Your task to perform on an android device: open device folders in google photos Image 0: 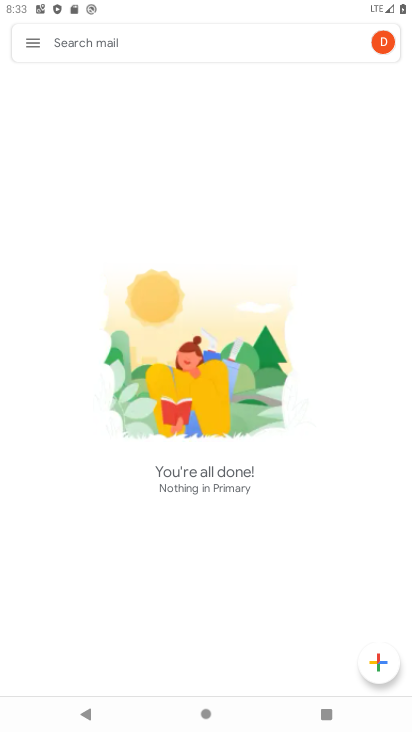
Step 0: press home button
Your task to perform on an android device: open device folders in google photos Image 1: 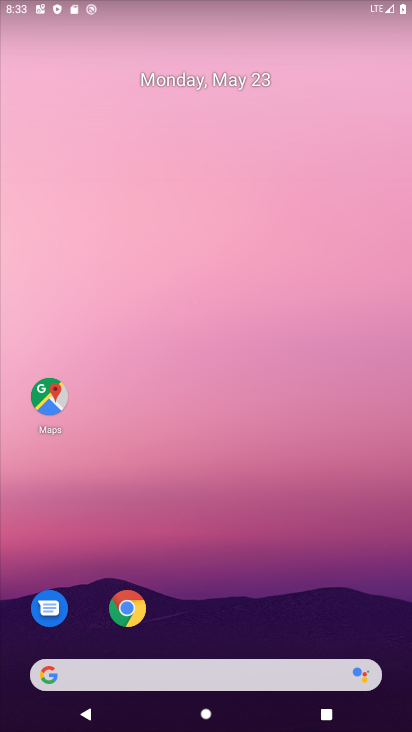
Step 1: drag from (208, 666) to (186, 204)
Your task to perform on an android device: open device folders in google photos Image 2: 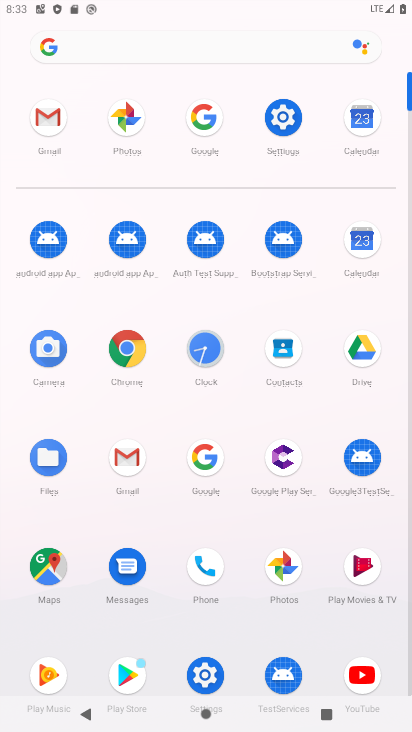
Step 2: click (299, 560)
Your task to perform on an android device: open device folders in google photos Image 3: 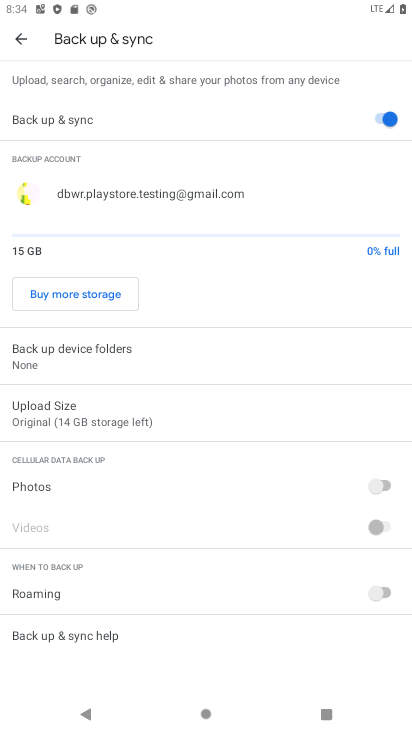
Step 3: click (12, 34)
Your task to perform on an android device: open device folders in google photos Image 4: 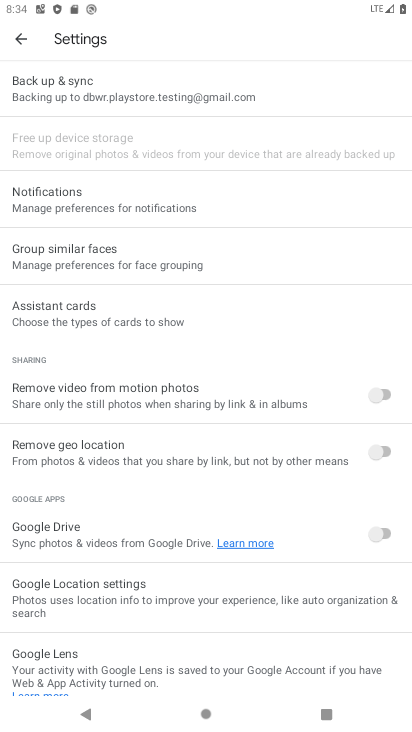
Step 4: click (23, 29)
Your task to perform on an android device: open device folders in google photos Image 5: 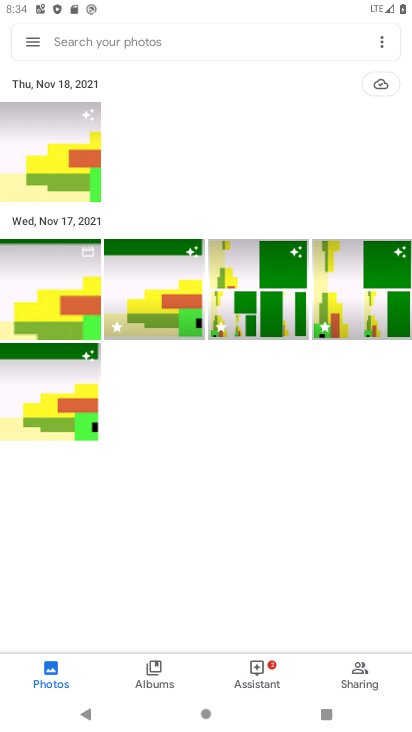
Step 5: click (169, 680)
Your task to perform on an android device: open device folders in google photos Image 6: 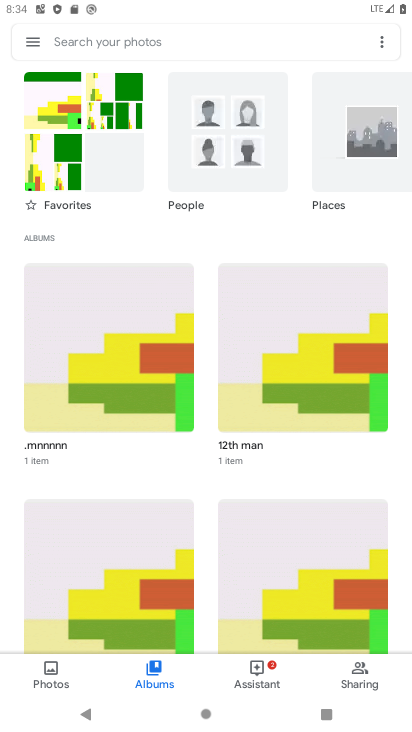
Step 6: task complete